Your task to perform on an android device: turn off sleep mode Image 0: 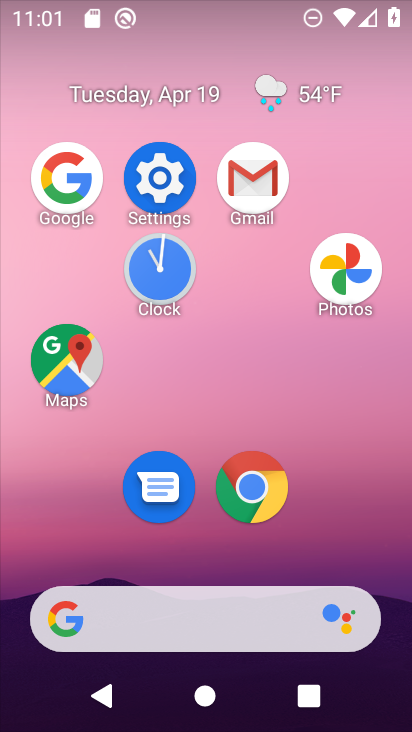
Step 0: click (143, 175)
Your task to perform on an android device: turn off sleep mode Image 1: 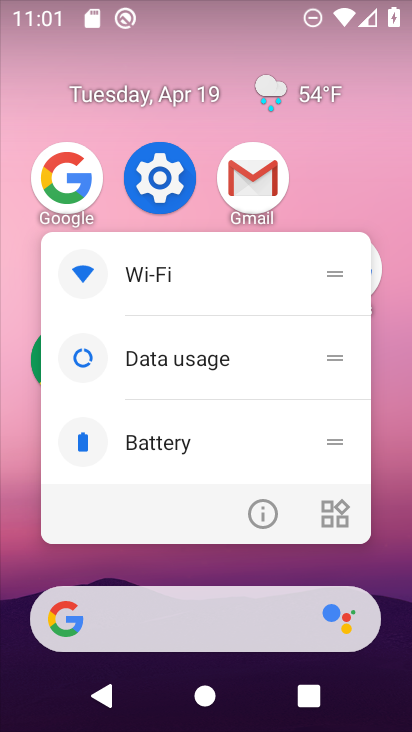
Step 1: click (155, 186)
Your task to perform on an android device: turn off sleep mode Image 2: 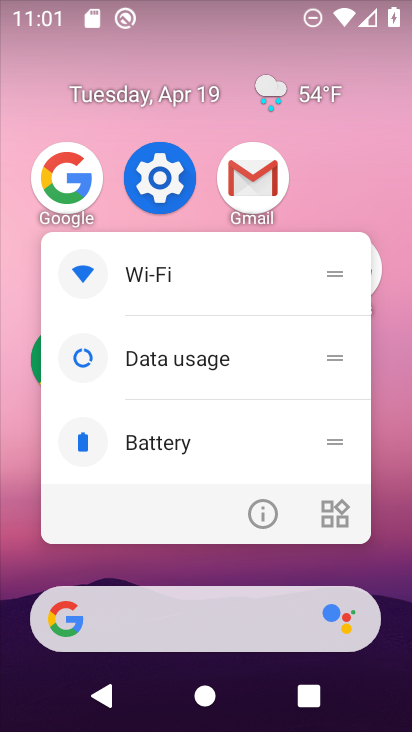
Step 2: click (154, 186)
Your task to perform on an android device: turn off sleep mode Image 3: 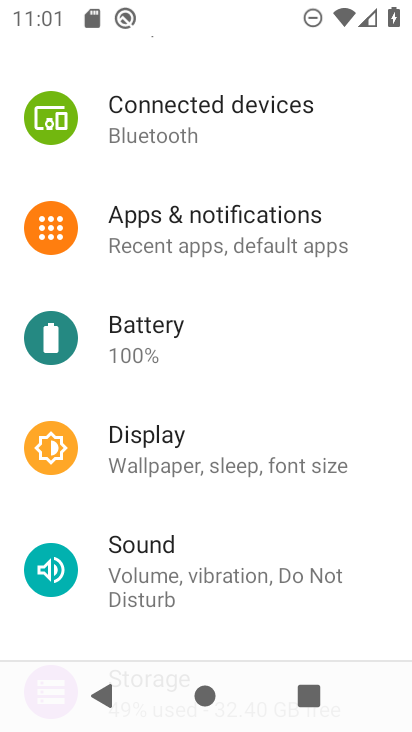
Step 3: click (245, 448)
Your task to perform on an android device: turn off sleep mode Image 4: 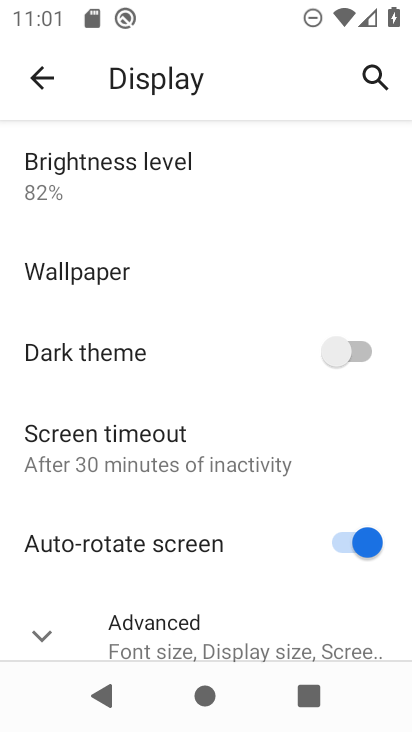
Step 4: click (242, 446)
Your task to perform on an android device: turn off sleep mode Image 5: 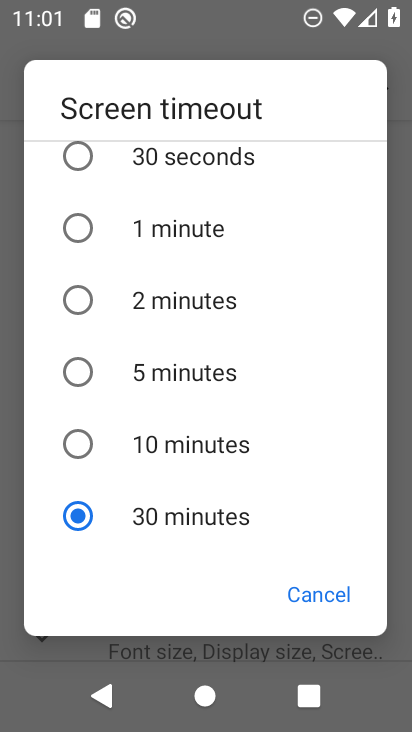
Step 5: task complete